Your task to perform on an android device: Search for Mexican restaurants on Maps Image 0: 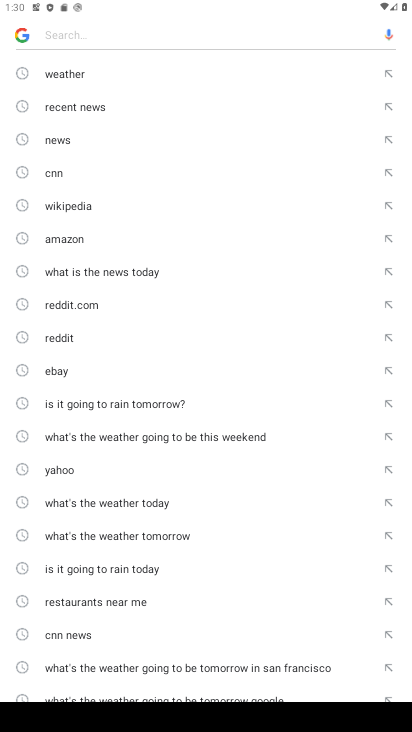
Step 0: press home button
Your task to perform on an android device: Search for Mexican restaurants on Maps Image 1: 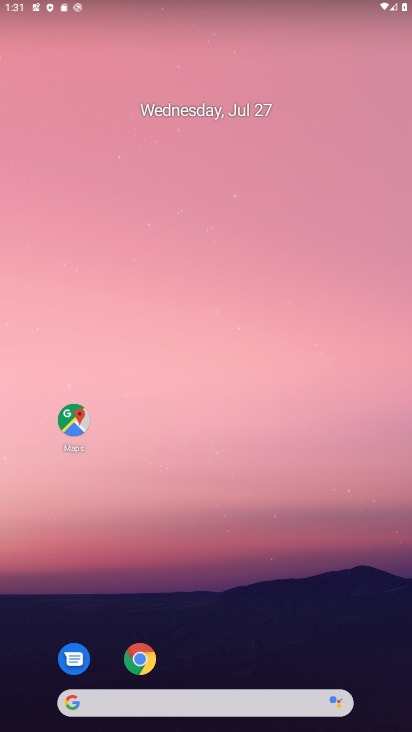
Step 1: drag from (267, 452) to (298, 4)
Your task to perform on an android device: Search for Mexican restaurants on Maps Image 2: 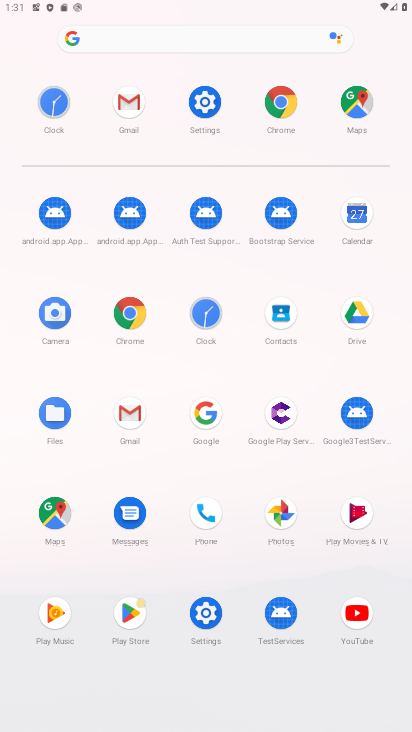
Step 2: click (366, 108)
Your task to perform on an android device: Search for Mexican restaurants on Maps Image 3: 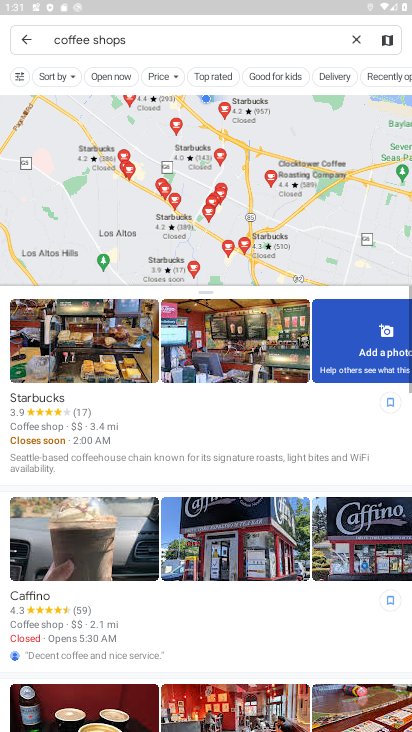
Step 3: click (348, 41)
Your task to perform on an android device: Search for Mexican restaurants on Maps Image 4: 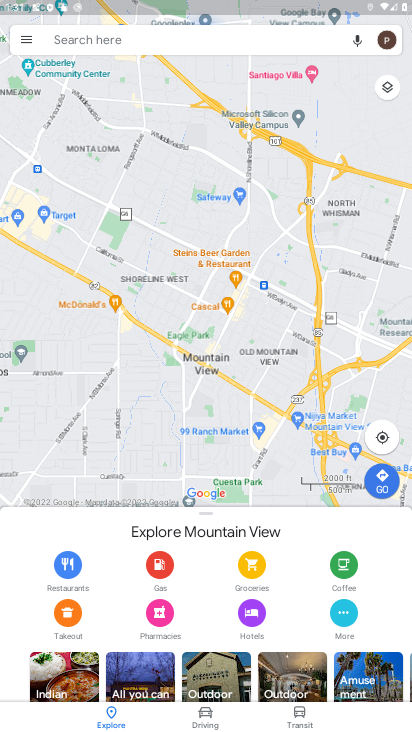
Step 4: click (274, 45)
Your task to perform on an android device: Search for Mexican restaurants on Maps Image 5: 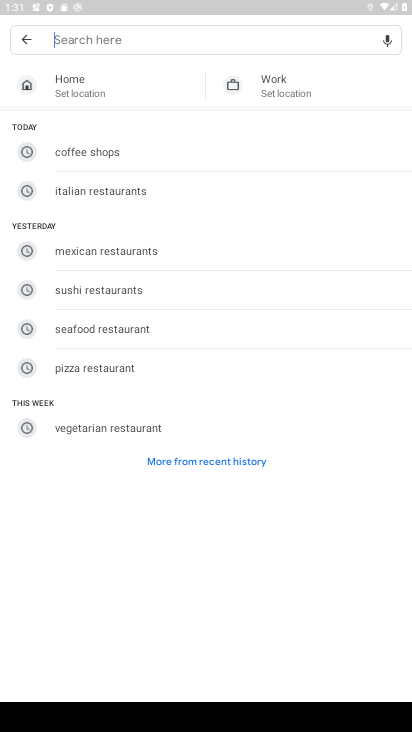
Step 5: click (147, 246)
Your task to perform on an android device: Search for Mexican restaurants on Maps Image 6: 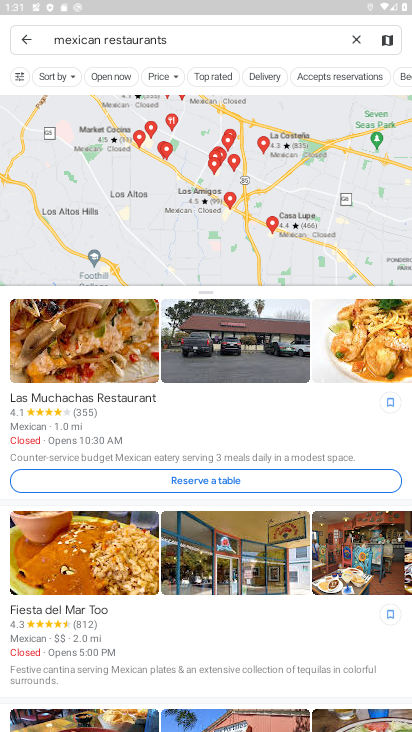
Step 6: task complete